Your task to perform on an android device: Check the news Image 0: 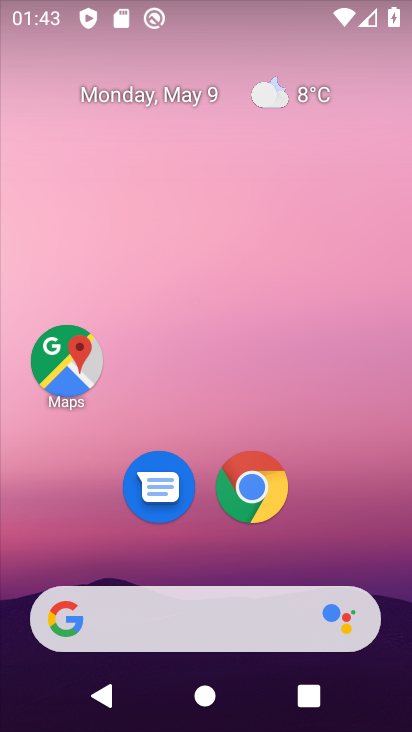
Step 0: drag from (26, 244) to (392, 249)
Your task to perform on an android device: Check the news Image 1: 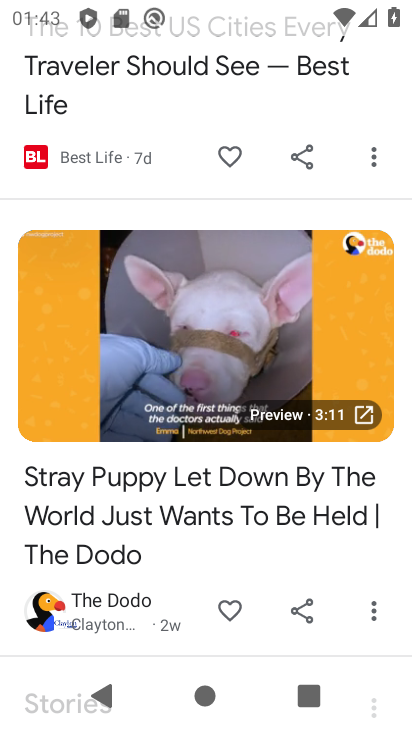
Step 1: task complete